Your task to perform on an android device: open app "AliExpress" Image 0: 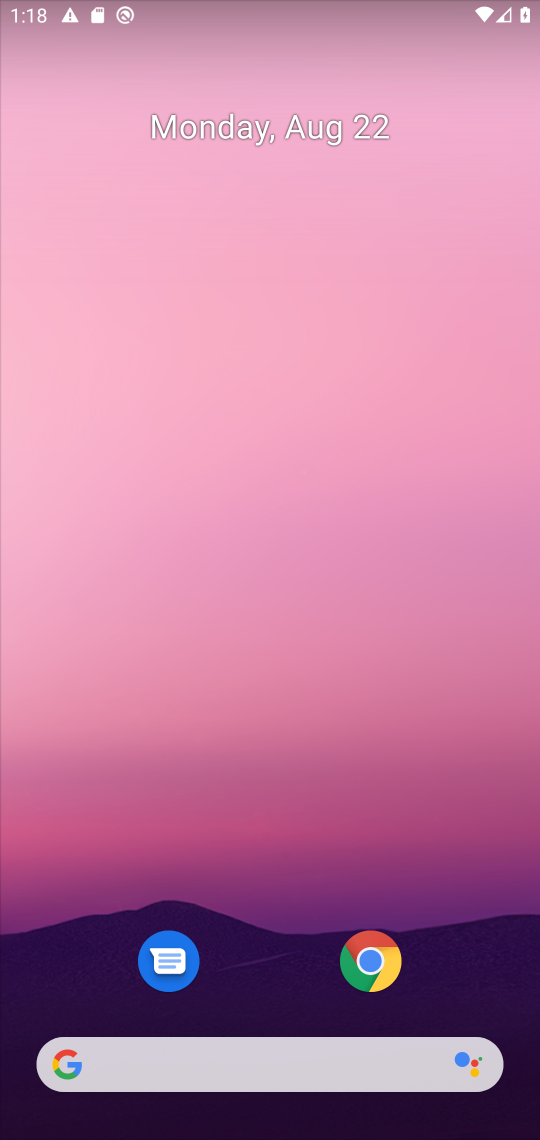
Step 0: press back button
Your task to perform on an android device: open app "AliExpress" Image 1: 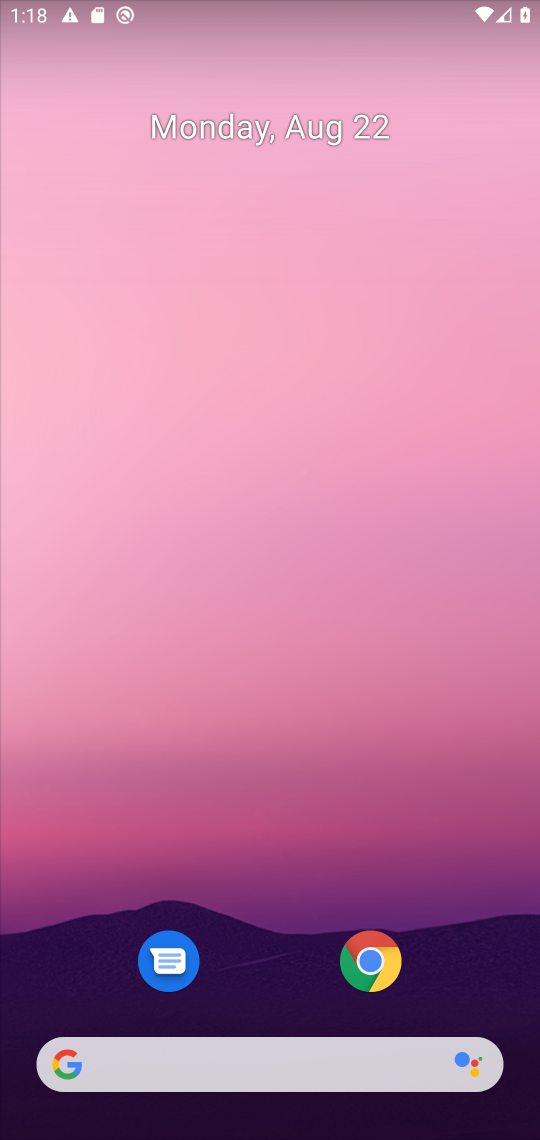
Step 1: drag from (470, 983) to (506, 53)
Your task to perform on an android device: open app "AliExpress" Image 2: 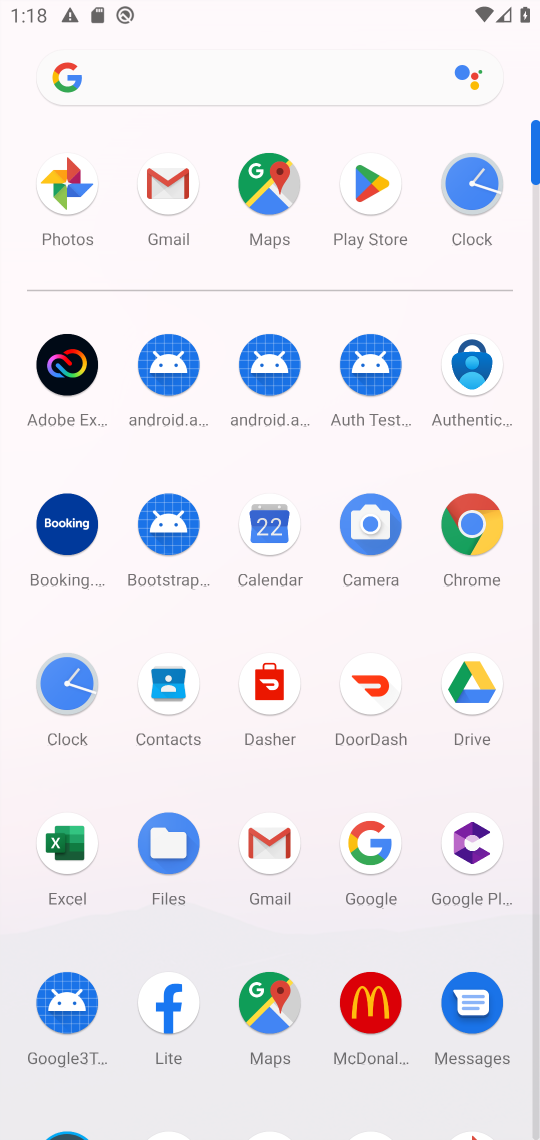
Step 2: click (363, 186)
Your task to perform on an android device: open app "AliExpress" Image 3: 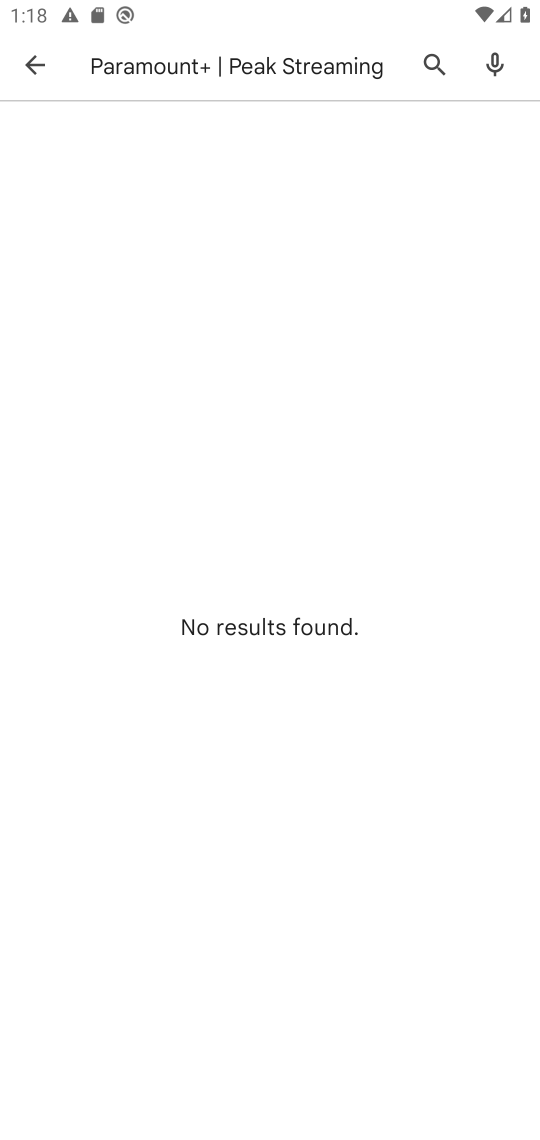
Step 3: press back button
Your task to perform on an android device: open app "AliExpress" Image 4: 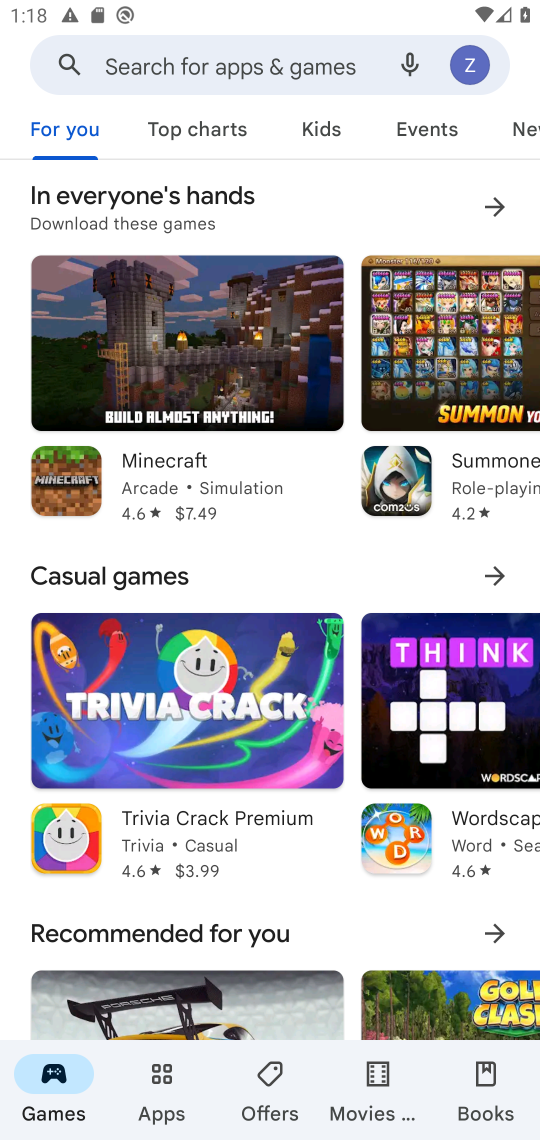
Step 4: click (304, 61)
Your task to perform on an android device: open app "AliExpress" Image 5: 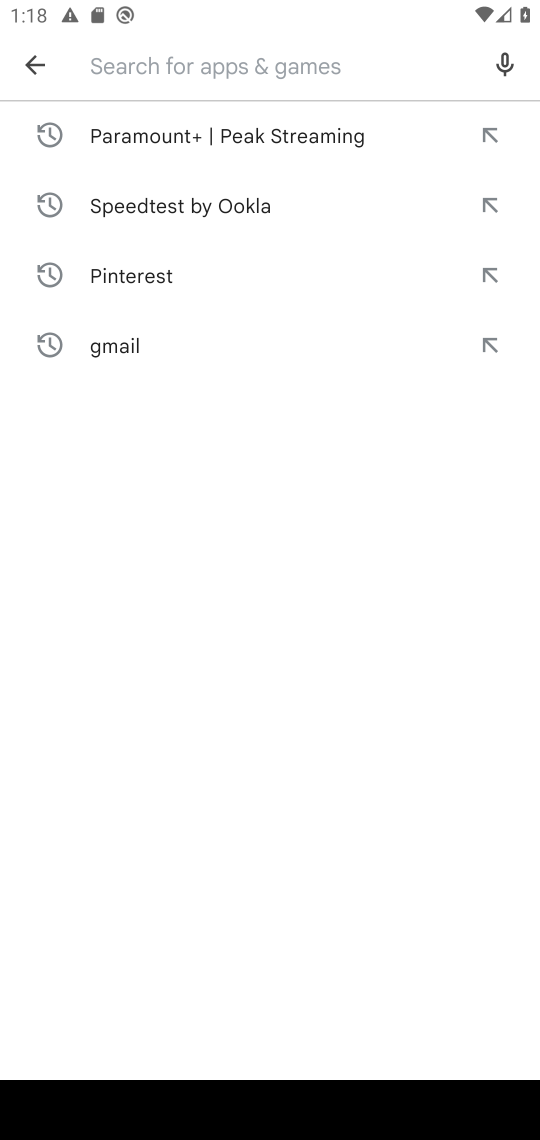
Step 5: type "AliExpress"
Your task to perform on an android device: open app "AliExpress" Image 6: 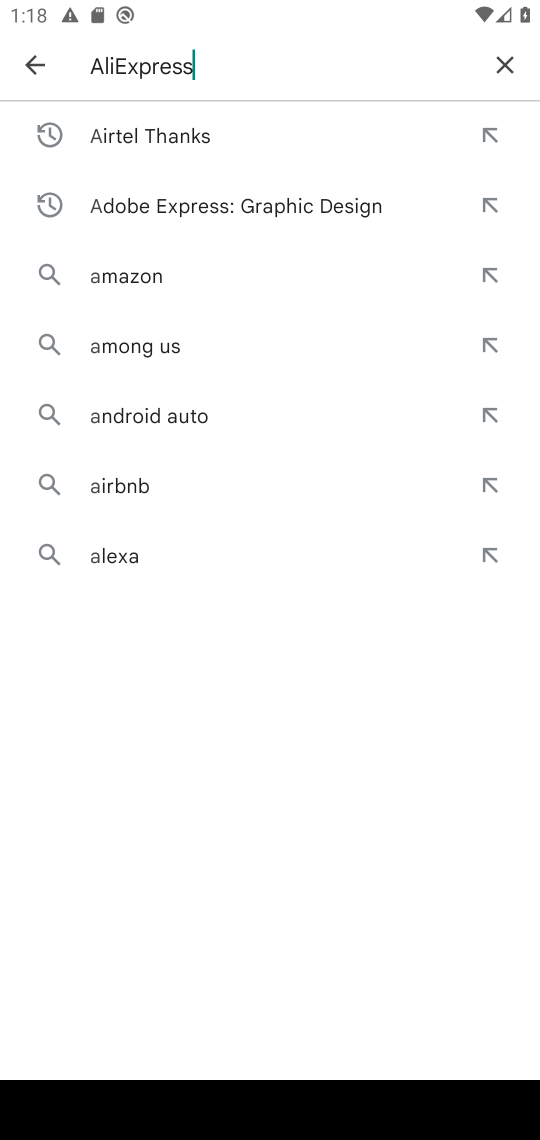
Step 6: press enter
Your task to perform on an android device: open app "AliExpress" Image 7: 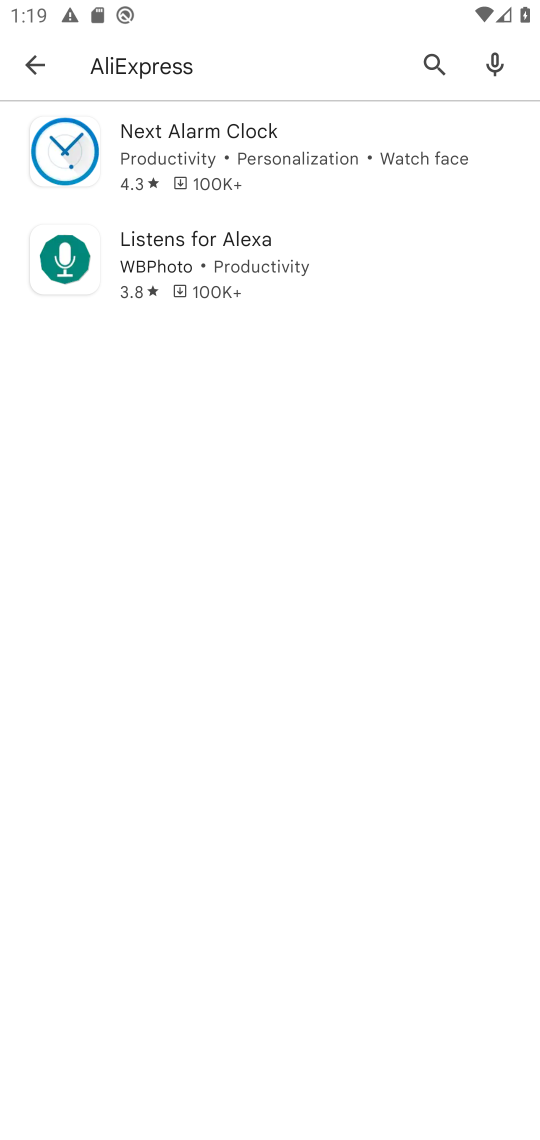
Step 7: task complete